Your task to perform on an android device: turn smart compose on in the gmail app Image 0: 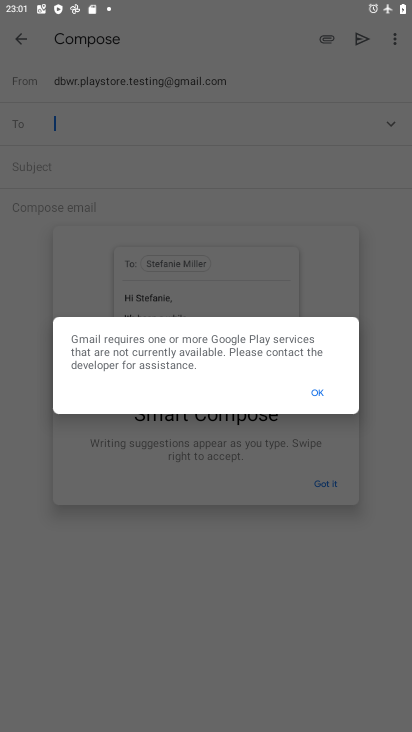
Step 0: click (313, 398)
Your task to perform on an android device: turn smart compose on in the gmail app Image 1: 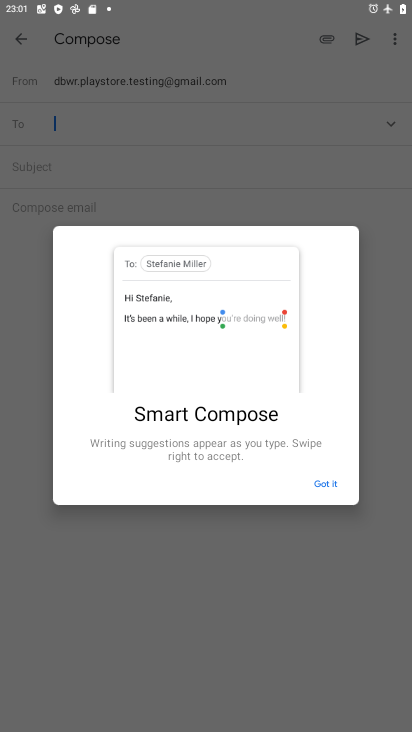
Step 1: press home button
Your task to perform on an android device: turn smart compose on in the gmail app Image 2: 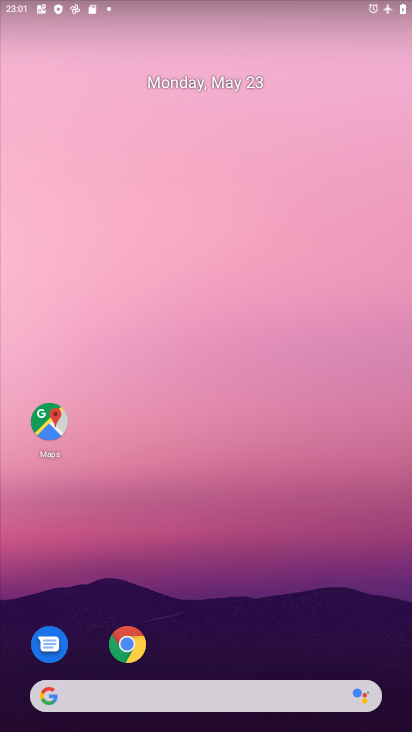
Step 2: drag from (214, 722) to (161, 34)
Your task to perform on an android device: turn smart compose on in the gmail app Image 3: 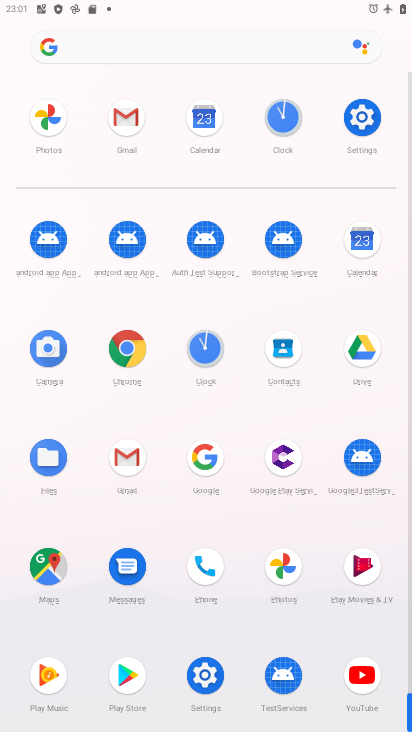
Step 3: click (137, 455)
Your task to perform on an android device: turn smart compose on in the gmail app Image 4: 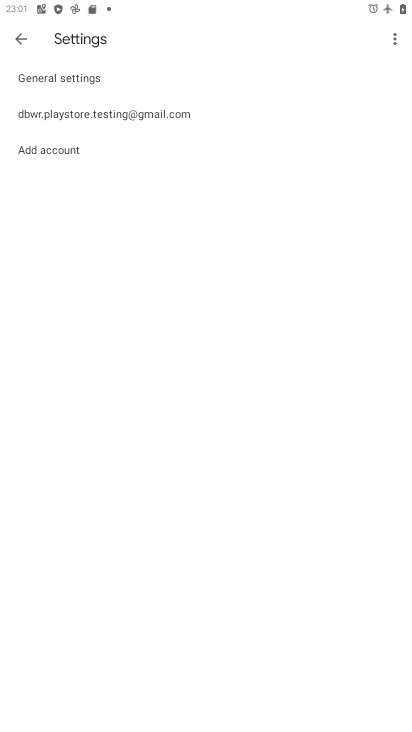
Step 4: click (84, 115)
Your task to perform on an android device: turn smart compose on in the gmail app Image 5: 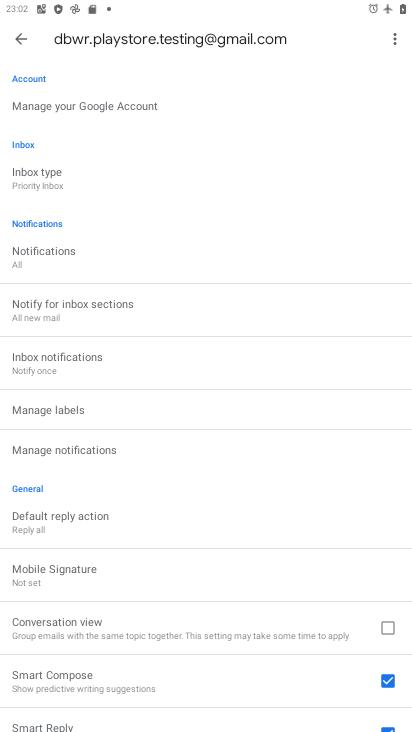
Step 5: task complete